Your task to perform on an android device: Clear the shopping cart on newegg. Add "usb-a" to the cart on newegg Image 0: 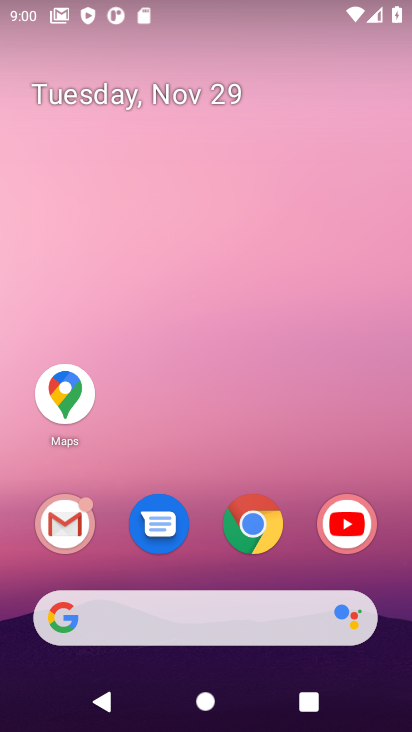
Step 0: click (256, 531)
Your task to perform on an android device: Clear the shopping cart on newegg. Add "usb-a" to the cart on newegg Image 1: 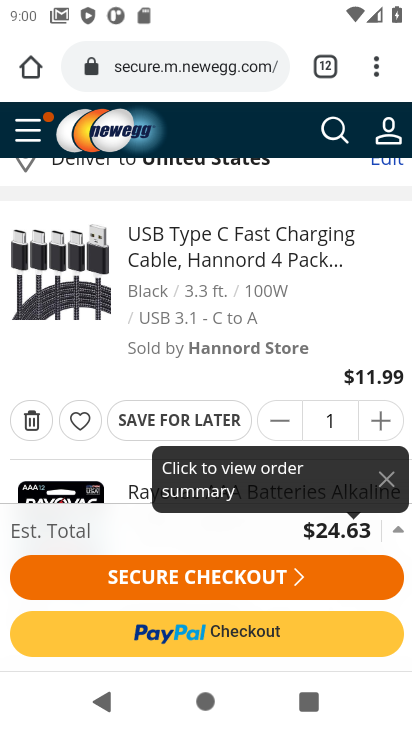
Step 1: click (32, 429)
Your task to perform on an android device: Clear the shopping cart on newegg. Add "usb-a" to the cart on newegg Image 2: 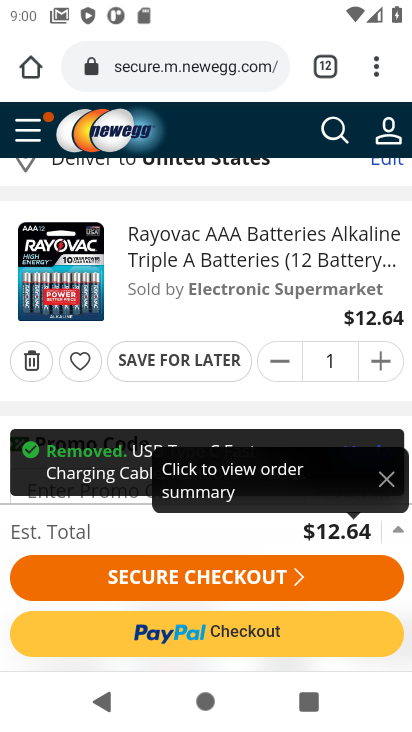
Step 2: click (28, 367)
Your task to perform on an android device: Clear the shopping cart on newegg. Add "usb-a" to the cart on newegg Image 3: 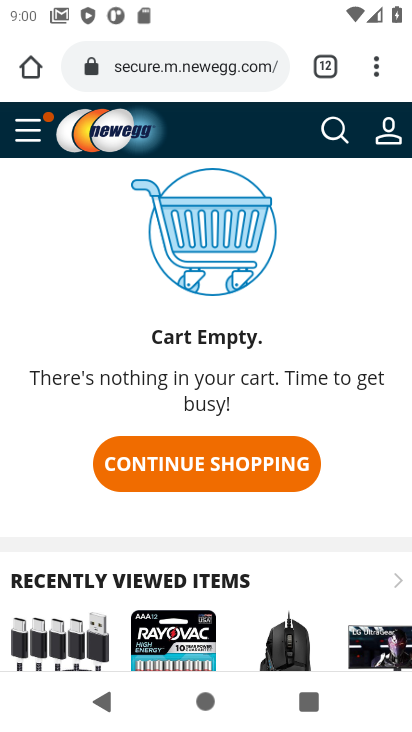
Step 3: click (328, 138)
Your task to perform on an android device: Clear the shopping cart on newegg. Add "usb-a" to the cart on newegg Image 4: 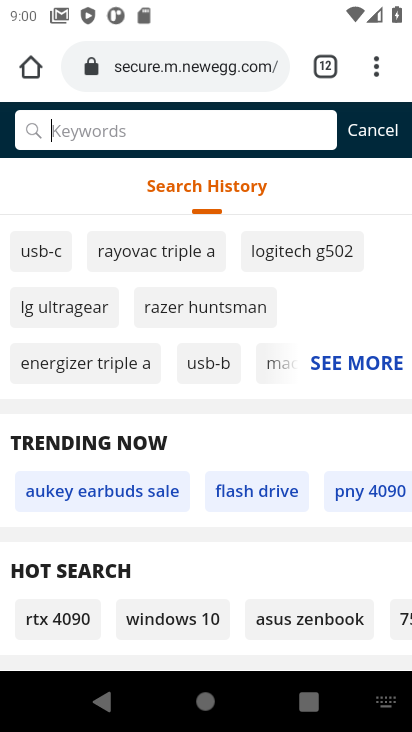
Step 4: type "usb-a"
Your task to perform on an android device: Clear the shopping cart on newegg. Add "usb-a" to the cart on newegg Image 5: 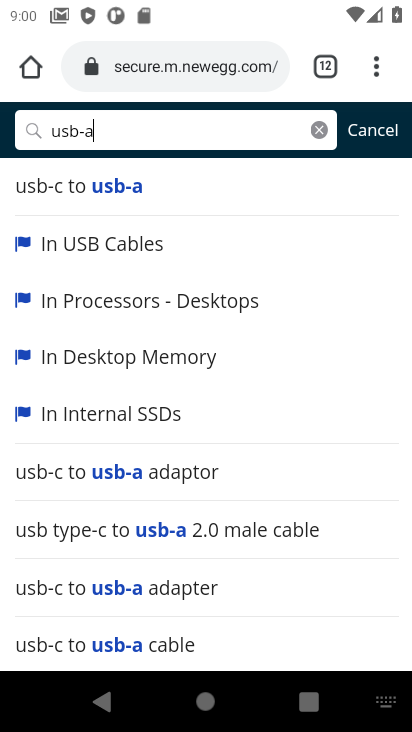
Step 5: drag from (119, 453) to (124, 223)
Your task to perform on an android device: Clear the shopping cart on newegg. Add "usb-a" to the cart on newegg Image 6: 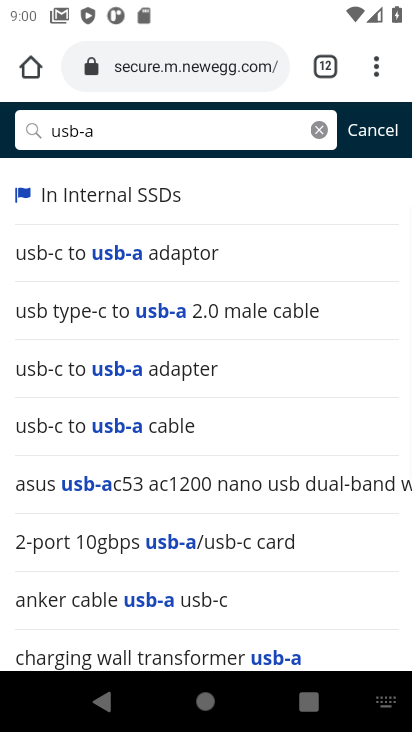
Step 6: drag from (117, 463) to (104, 334)
Your task to perform on an android device: Clear the shopping cart on newegg. Add "usb-a" to the cart on newegg Image 7: 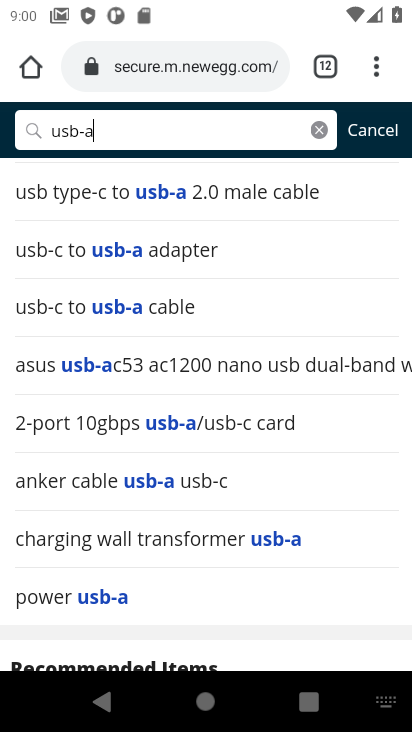
Step 7: click (92, 601)
Your task to perform on an android device: Clear the shopping cart on newegg. Add "usb-a" to the cart on newegg Image 8: 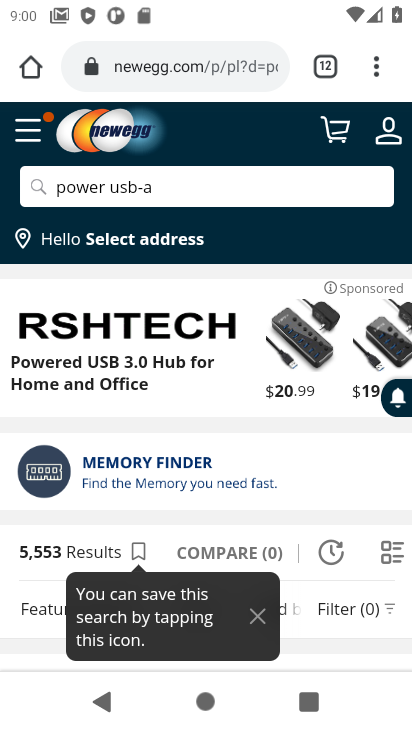
Step 8: drag from (184, 536) to (180, 268)
Your task to perform on an android device: Clear the shopping cart on newegg. Add "usb-a" to the cart on newegg Image 9: 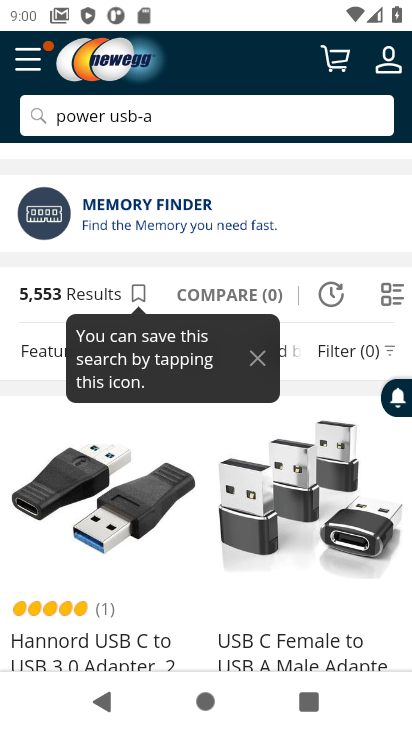
Step 9: drag from (147, 430) to (127, 254)
Your task to perform on an android device: Clear the shopping cart on newegg. Add "usb-a" to the cart on newegg Image 10: 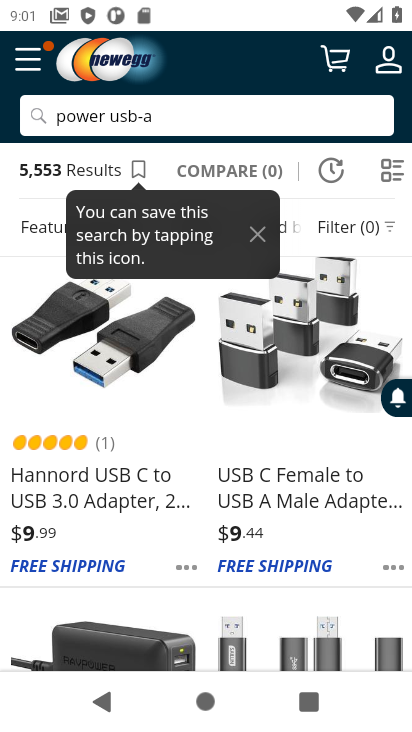
Step 10: click (310, 451)
Your task to perform on an android device: Clear the shopping cart on newegg. Add "usb-a" to the cart on newegg Image 11: 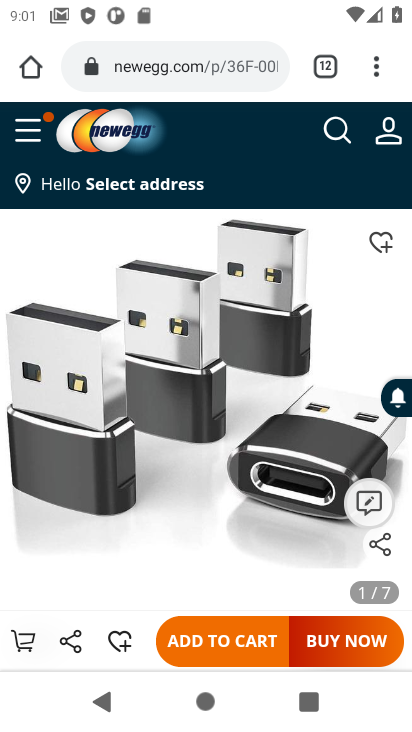
Step 11: click (219, 636)
Your task to perform on an android device: Clear the shopping cart on newegg. Add "usb-a" to the cart on newegg Image 12: 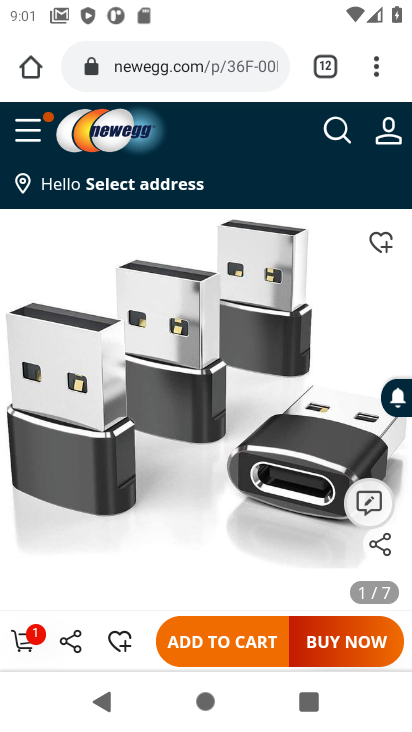
Step 12: task complete